Your task to perform on an android device: Open Google Chrome and open the bookmarks view Image 0: 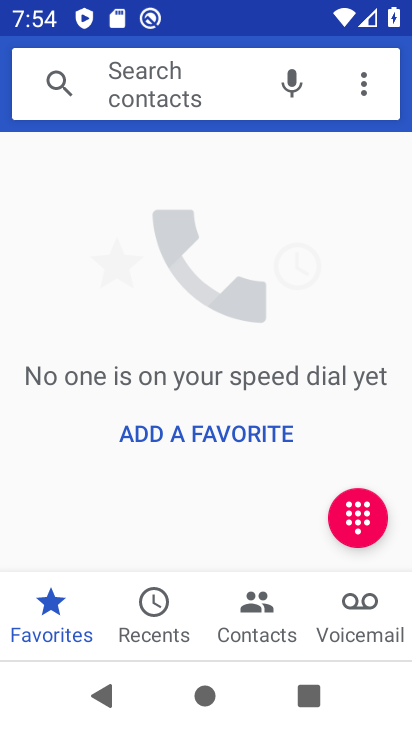
Step 0: press home button
Your task to perform on an android device: Open Google Chrome and open the bookmarks view Image 1: 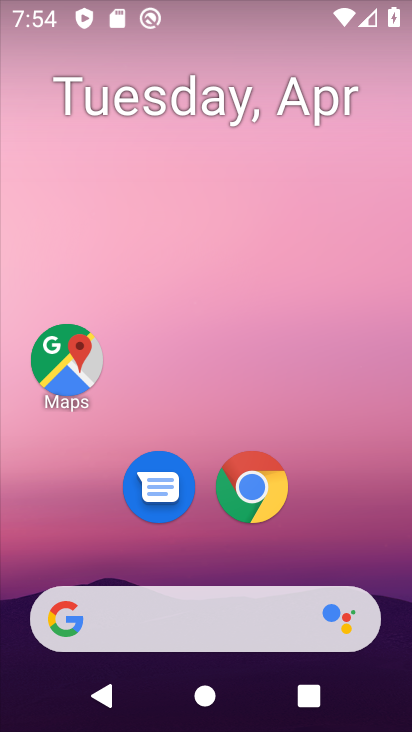
Step 1: drag from (190, 581) to (233, 202)
Your task to perform on an android device: Open Google Chrome and open the bookmarks view Image 2: 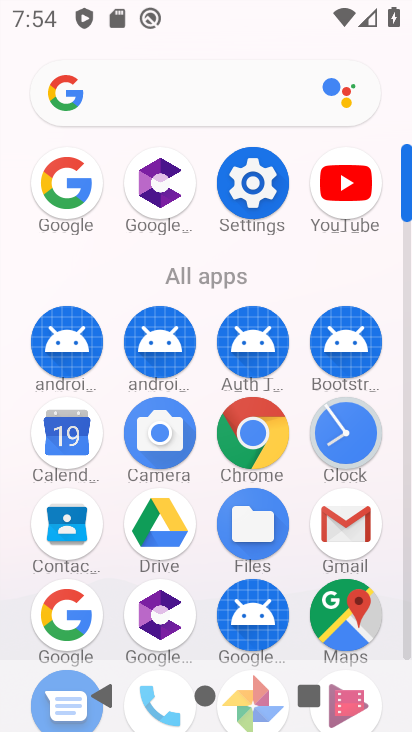
Step 2: click (255, 434)
Your task to perform on an android device: Open Google Chrome and open the bookmarks view Image 3: 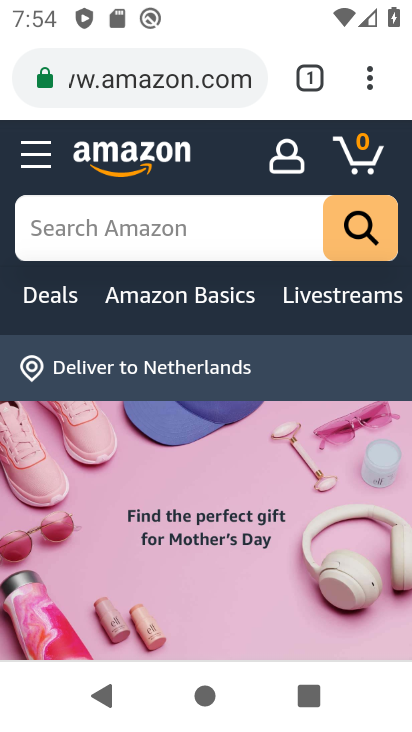
Step 3: click (310, 76)
Your task to perform on an android device: Open Google Chrome and open the bookmarks view Image 4: 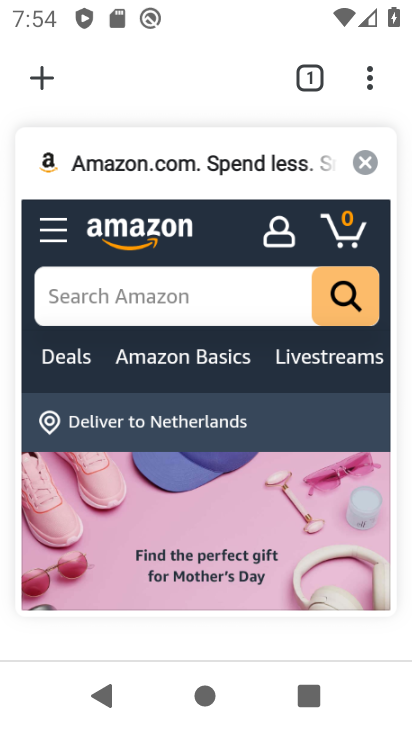
Step 4: click (363, 166)
Your task to perform on an android device: Open Google Chrome and open the bookmarks view Image 5: 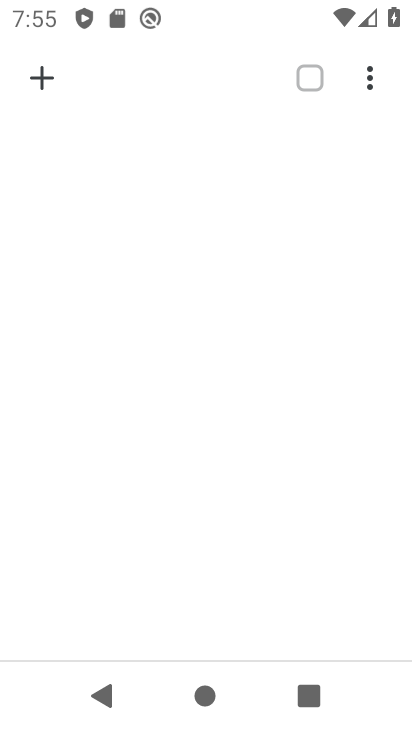
Step 5: click (369, 78)
Your task to perform on an android device: Open Google Chrome and open the bookmarks view Image 6: 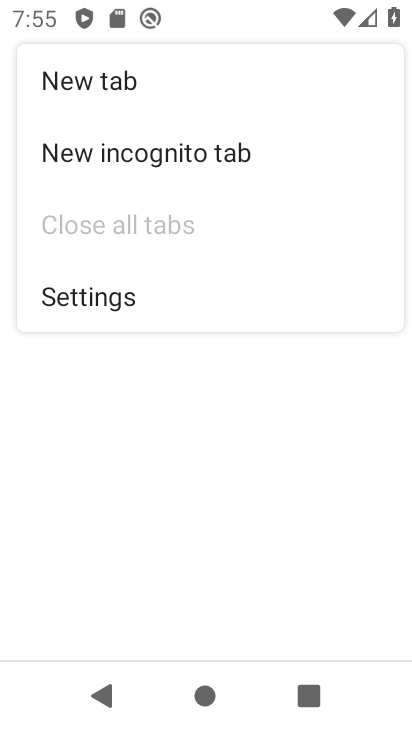
Step 6: click (186, 527)
Your task to perform on an android device: Open Google Chrome and open the bookmarks view Image 7: 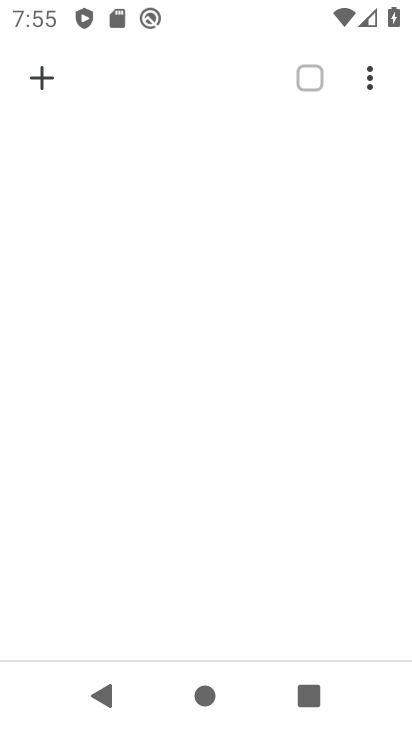
Step 7: click (19, 75)
Your task to perform on an android device: Open Google Chrome and open the bookmarks view Image 8: 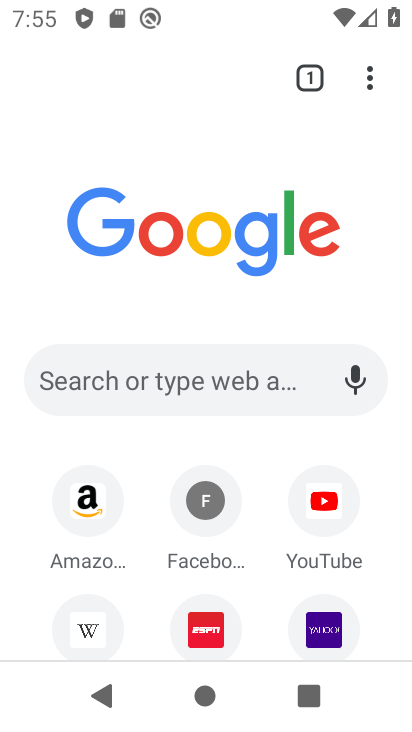
Step 8: click (374, 81)
Your task to perform on an android device: Open Google Chrome and open the bookmarks view Image 9: 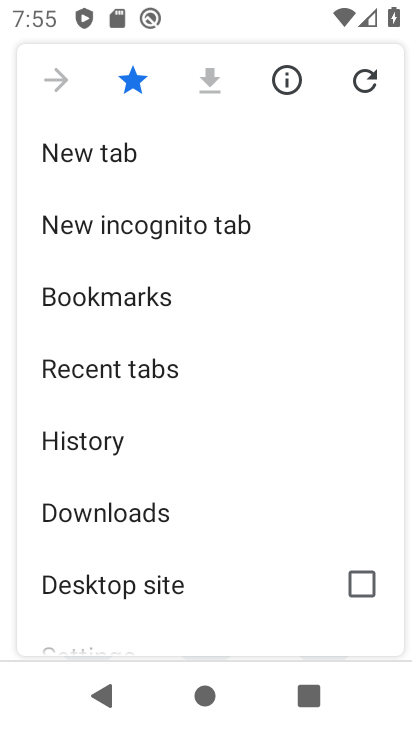
Step 9: click (126, 295)
Your task to perform on an android device: Open Google Chrome and open the bookmarks view Image 10: 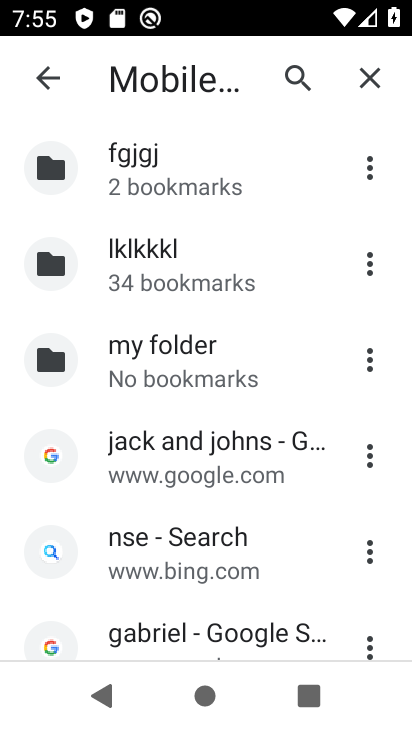
Step 10: task complete